Your task to perform on an android device: Open Google Chrome and click the shortcut for Amazon.com Image 0: 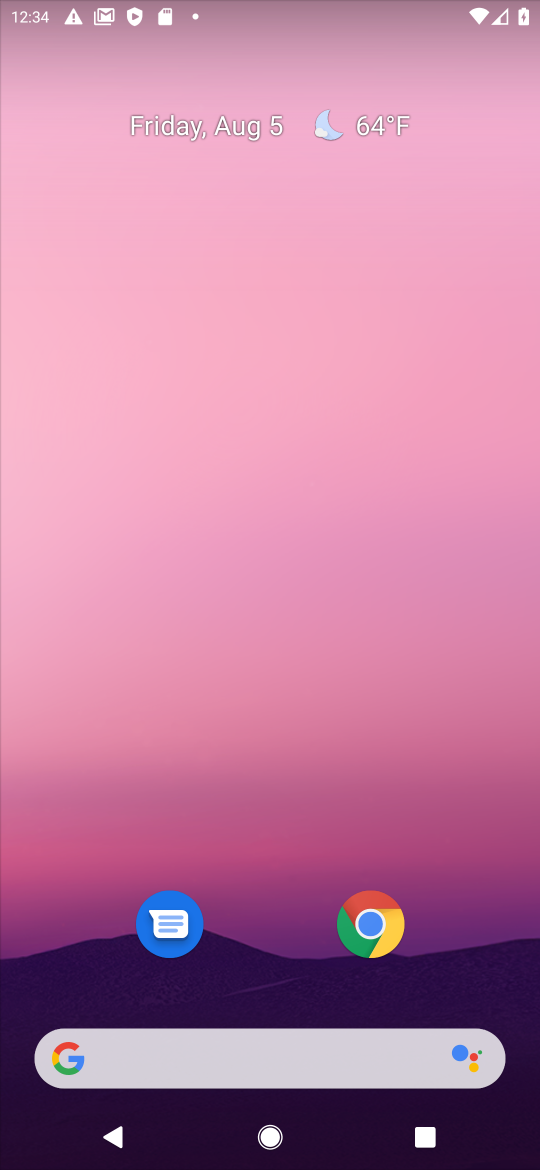
Step 0: press home button
Your task to perform on an android device: Open Google Chrome and click the shortcut for Amazon.com Image 1: 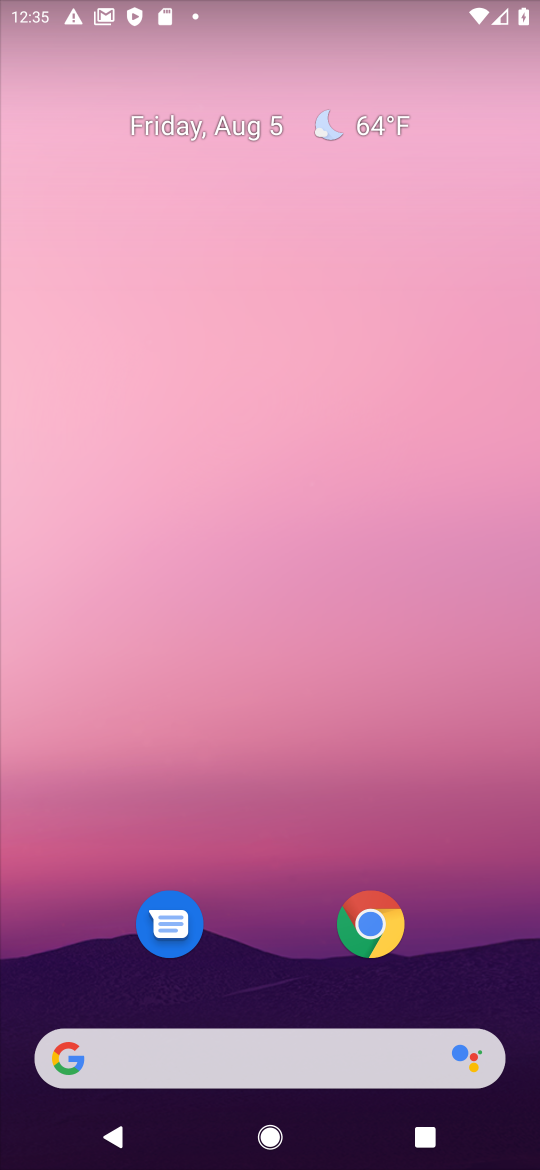
Step 1: click (350, 940)
Your task to perform on an android device: Open Google Chrome and click the shortcut for Amazon.com Image 2: 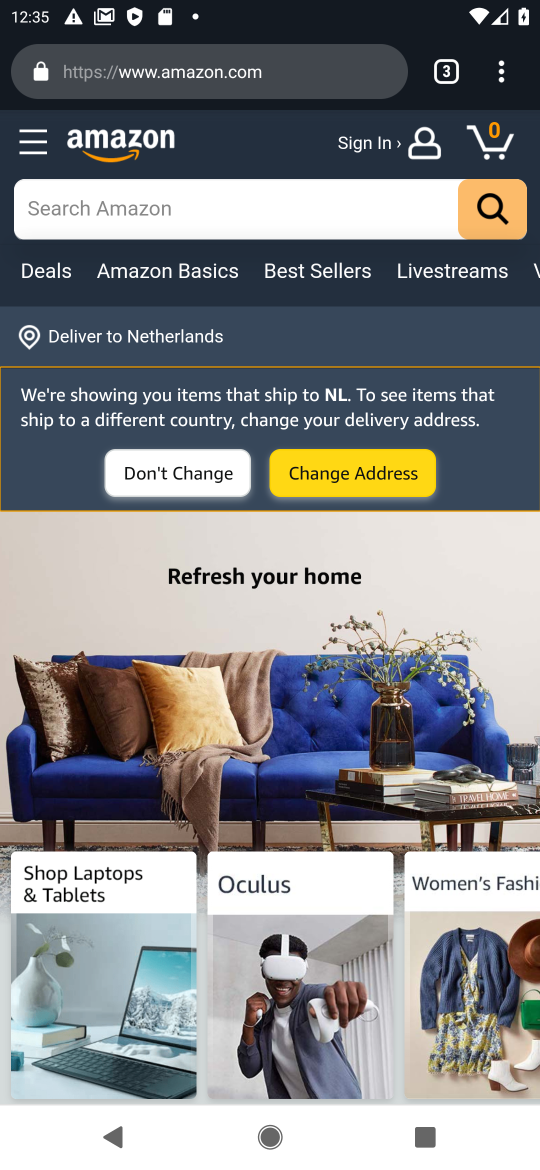
Step 2: click (439, 69)
Your task to perform on an android device: Open Google Chrome and click the shortcut for Amazon.com Image 3: 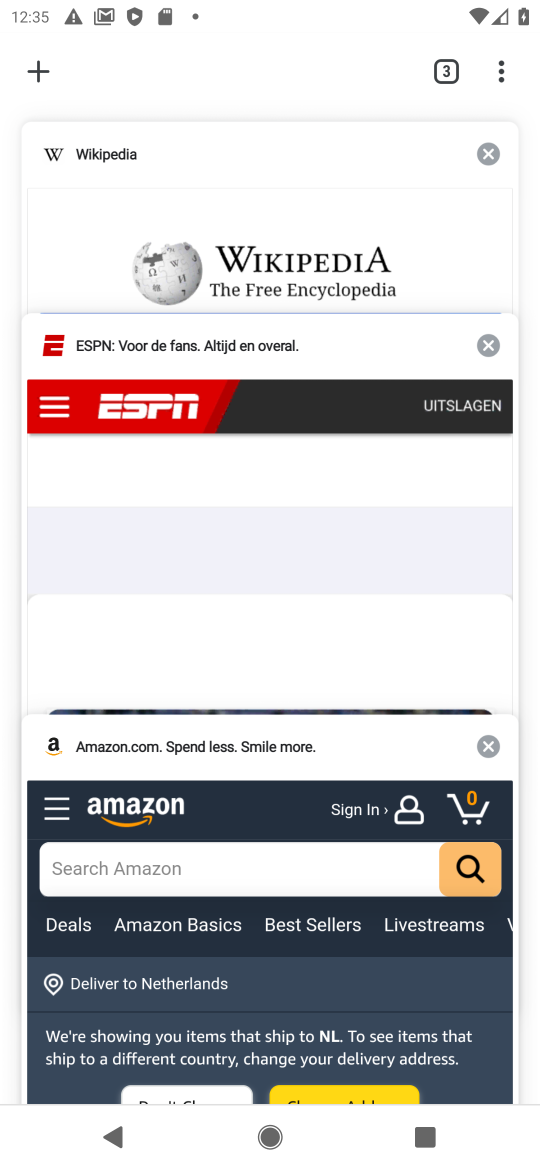
Step 3: click (36, 82)
Your task to perform on an android device: Open Google Chrome and click the shortcut for Amazon.com Image 4: 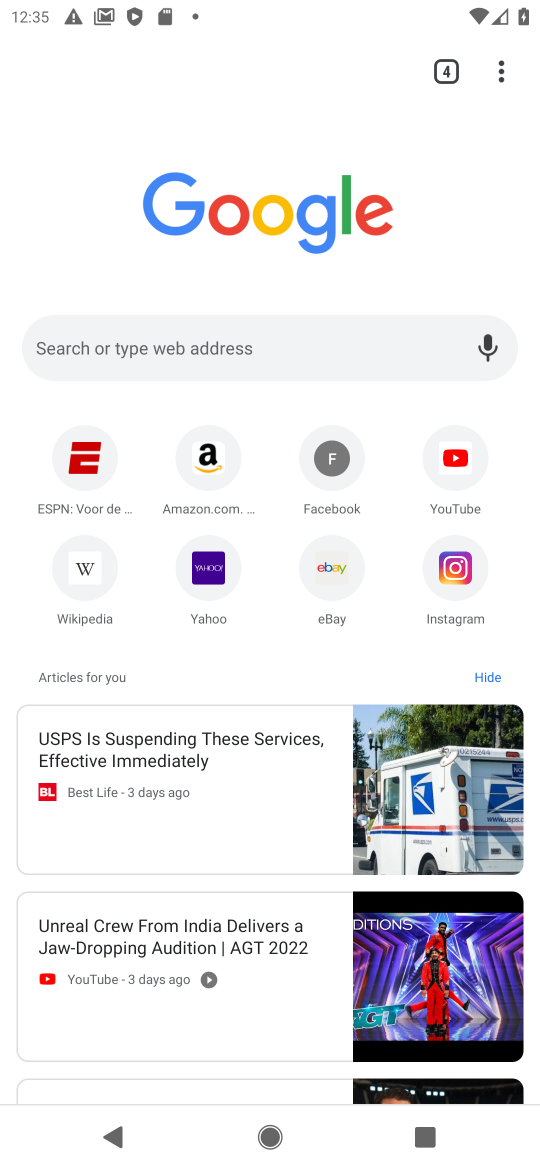
Step 4: click (209, 439)
Your task to perform on an android device: Open Google Chrome and click the shortcut for Amazon.com Image 5: 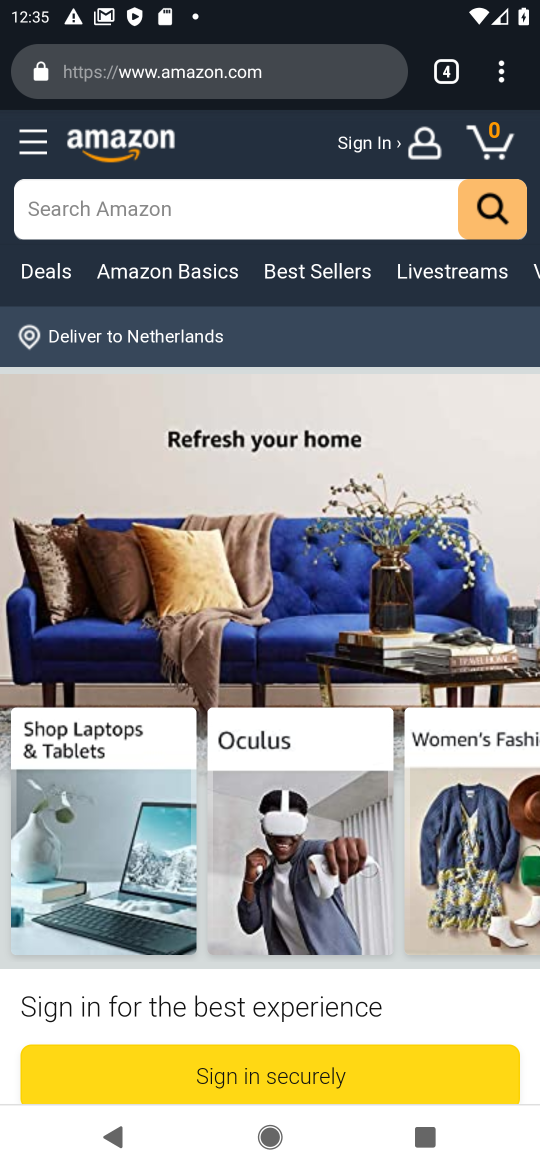
Step 5: task complete